Your task to perform on an android device: Do I have any events this weekend? Image 0: 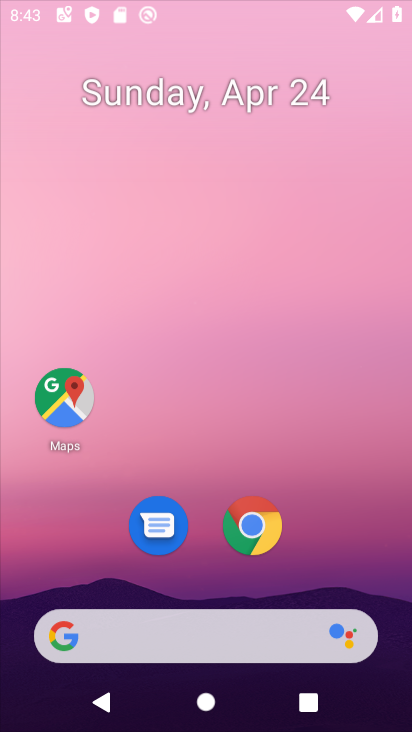
Step 0: click (351, 158)
Your task to perform on an android device: Do I have any events this weekend? Image 1: 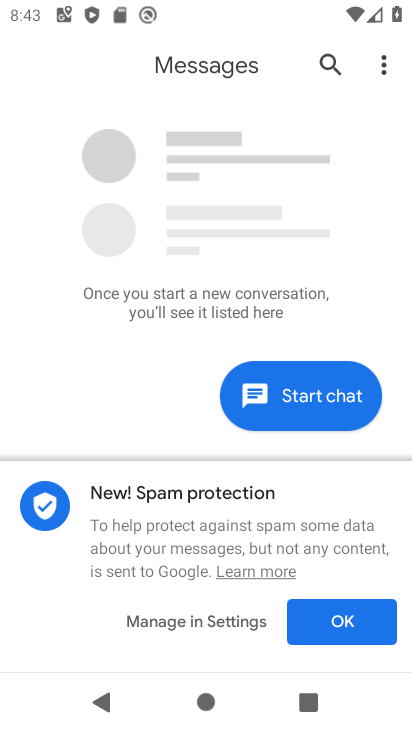
Step 1: press home button
Your task to perform on an android device: Do I have any events this weekend? Image 2: 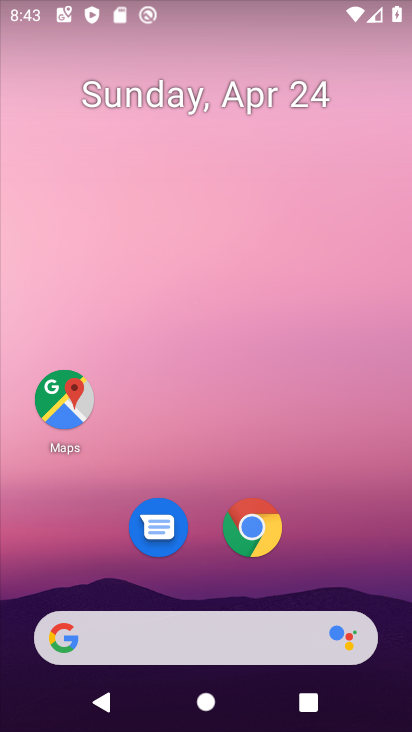
Step 2: drag from (375, 593) to (338, 7)
Your task to perform on an android device: Do I have any events this weekend? Image 3: 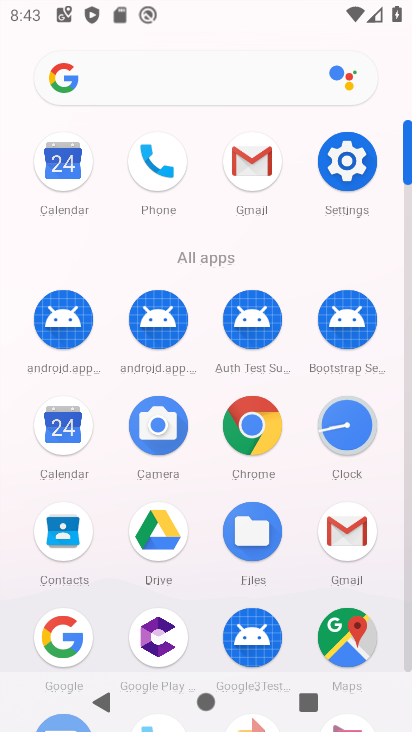
Step 3: click (72, 431)
Your task to perform on an android device: Do I have any events this weekend? Image 4: 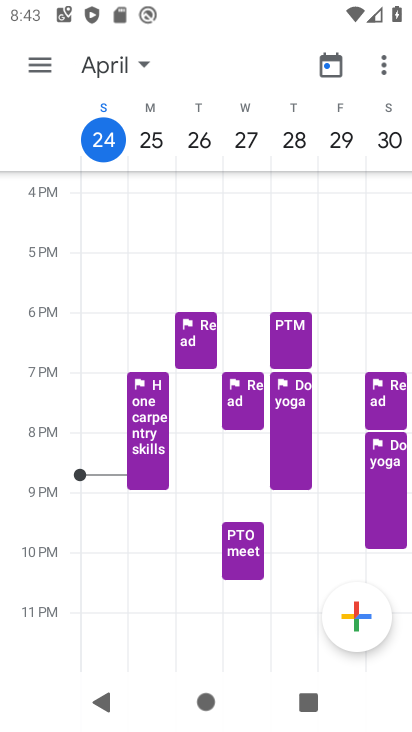
Step 4: task complete